Your task to perform on an android device: turn on translation in the chrome app Image 0: 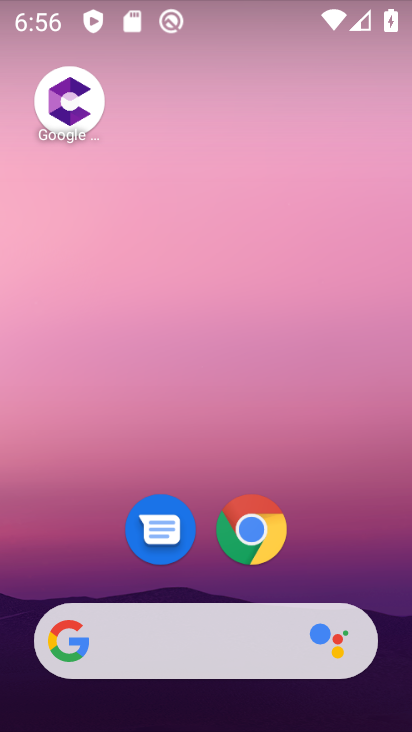
Step 0: click (254, 526)
Your task to perform on an android device: turn on translation in the chrome app Image 1: 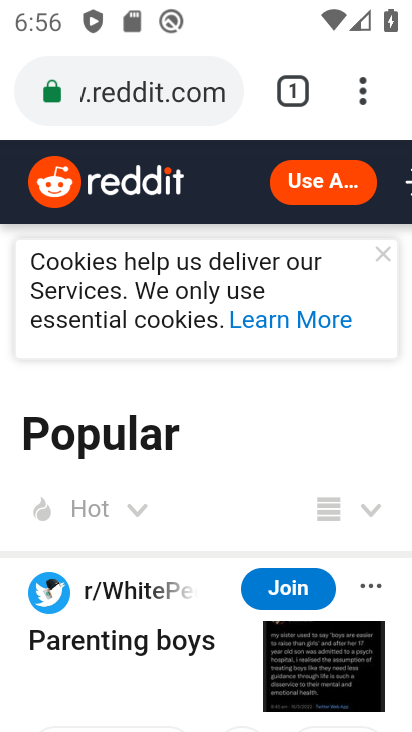
Step 1: click (356, 87)
Your task to perform on an android device: turn on translation in the chrome app Image 2: 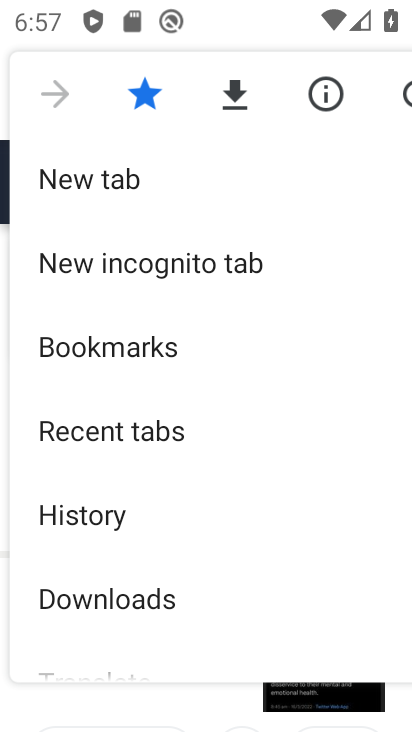
Step 2: drag from (254, 532) to (233, 155)
Your task to perform on an android device: turn on translation in the chrome app Image 3: 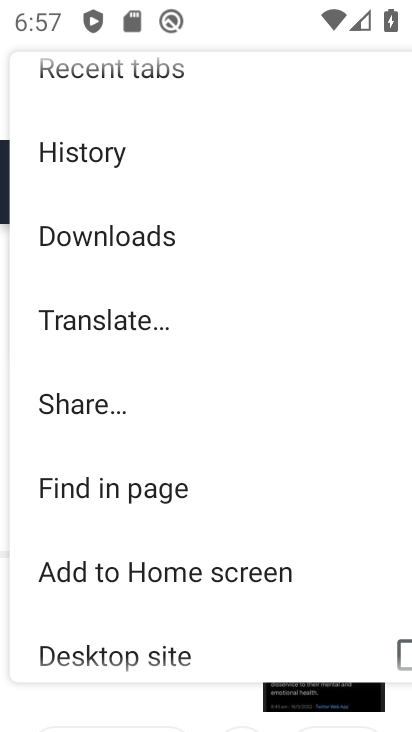
Step 3: drag from (216, 608) to (292, 108)
Your task to perform on an android device: turn on translation in the chrome app Image 4: 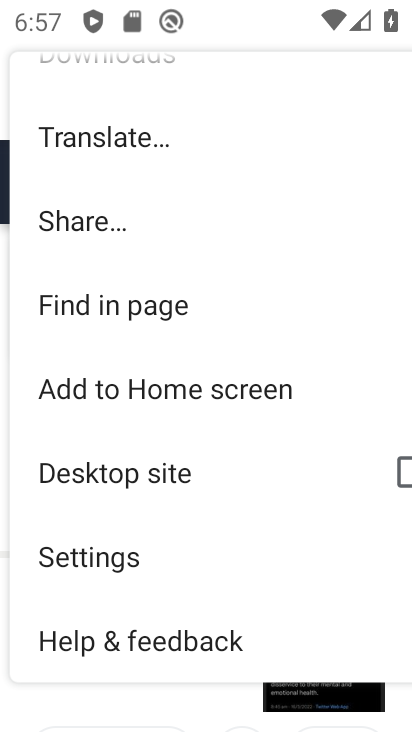
Step 4: click (88, 551)
Your task to perform on an android device: turn on translation in the chrome app Image 5: 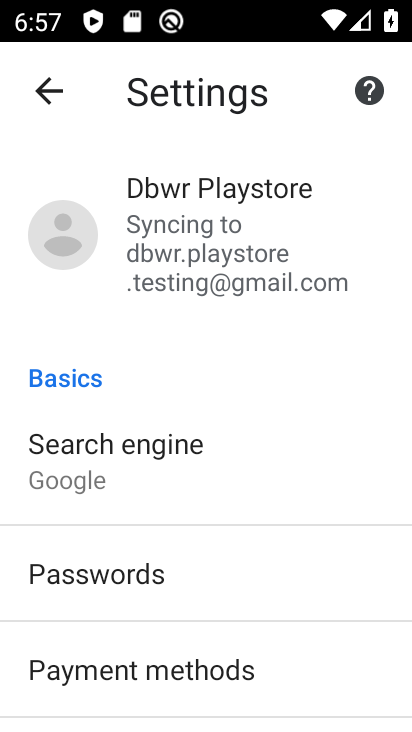
Step 5: drag from (253, 579) to (197, 262)
Your task to perform on an android device: turn on translation in the chrome app Image 6: 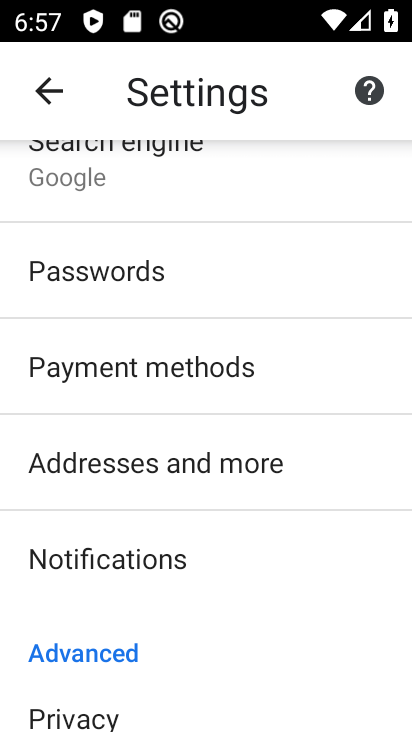
Step 6: drag from (230, 584) to (190, 356)
Your task to perform on an android device: turn on translation in the chrome app Image 7: 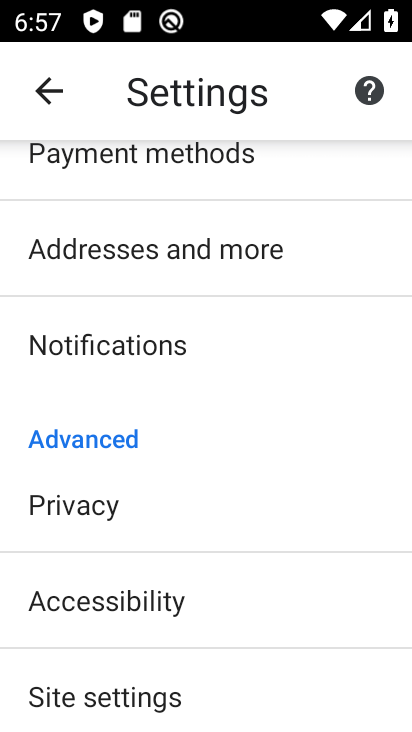
Step 7: drag from (216, 556) to (169, 349)
Your task to perform on an android device: turn on translation in the chrome app Image 8: 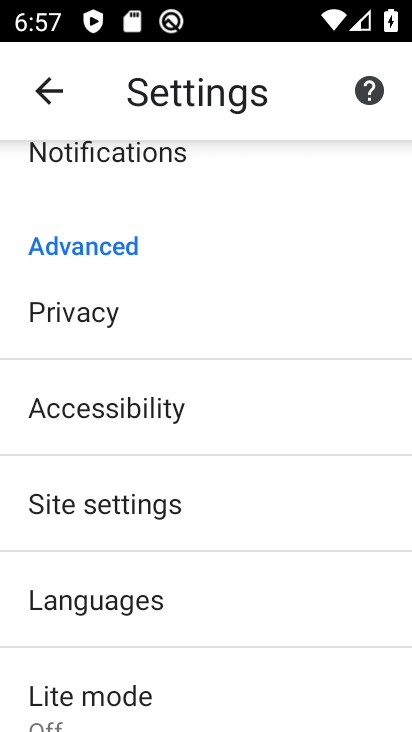
Step 8: click (105, 601)
Your task to perform on an android device: turn on translation in the chrome app Image 9: 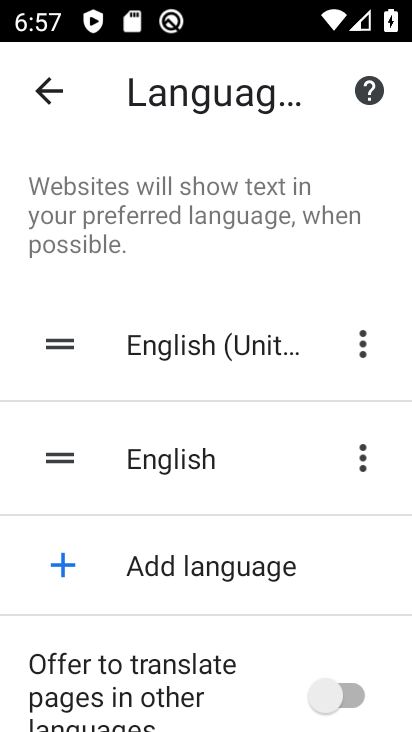
Step 9: click (324, 698)
Your task to perform on an android device: turn on translation in the chrome app Image 10: 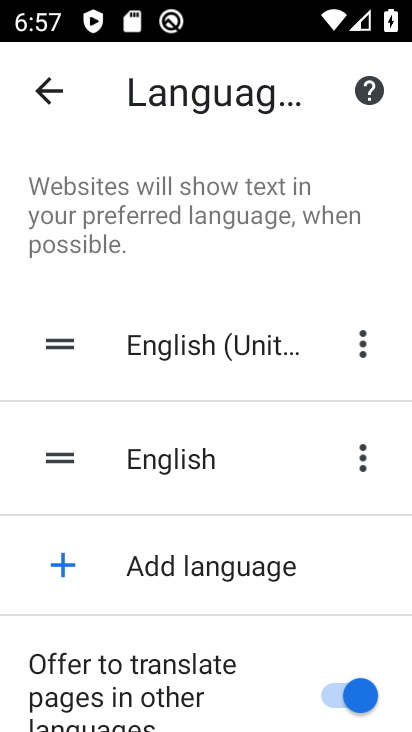
Step 10: task complete